Your task to perform on an android device: Open ESPN.com Image 0: 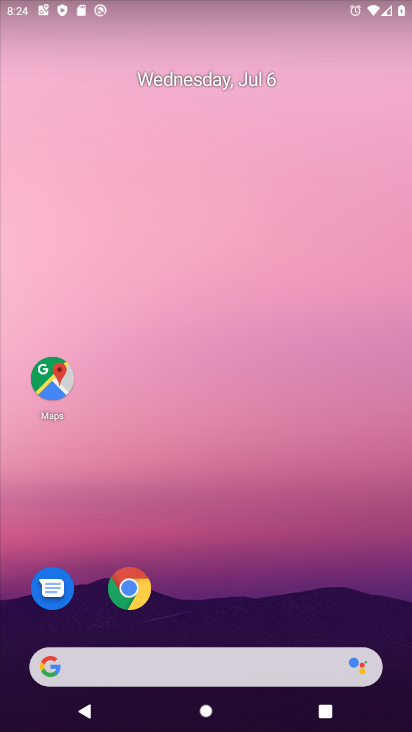
Step 0: drag from (196, 630) to (196, 278)
Your task to perform on an android device: Open ESPN.com Image 1: 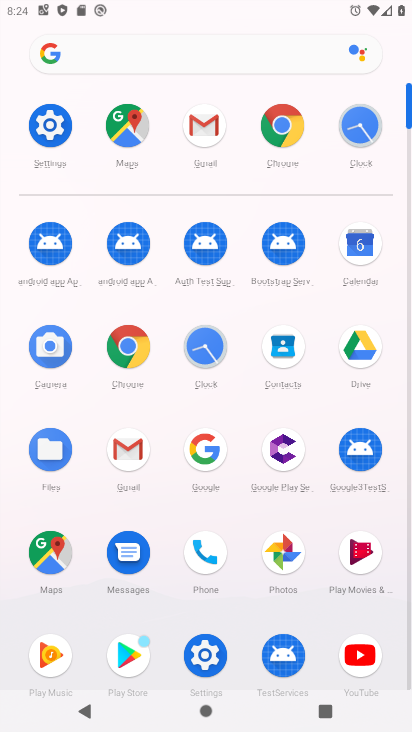
Step 1: click (137, 332)
Your task to perform on an android device: Open ESPN.com Image 2: 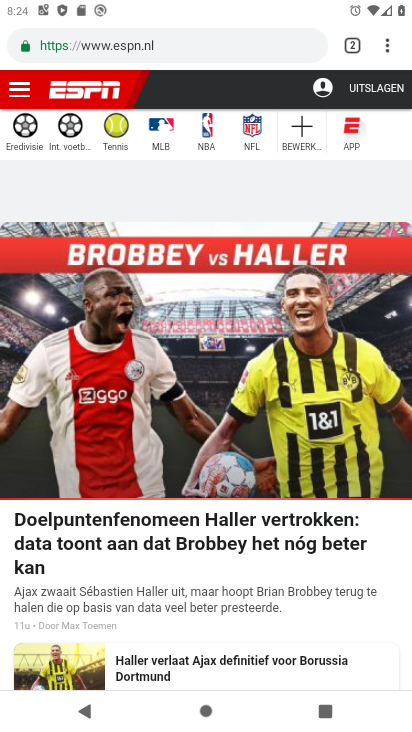
Step 2: task complete